Your task to perform on an android device: set the stopwatch Image 0: 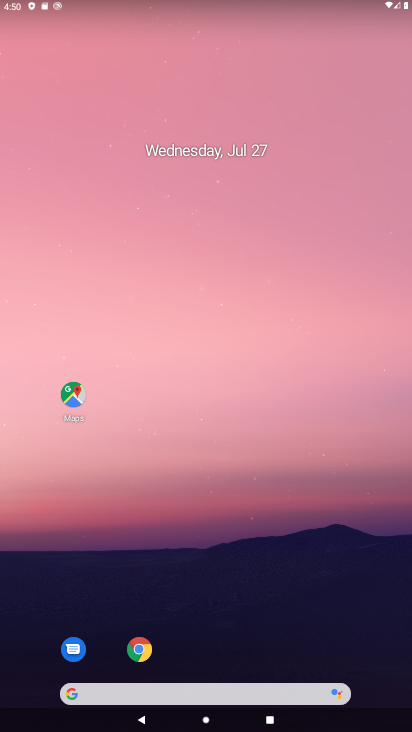
Step 0: drag from (226, 683) to (187, 45)
Your task to perform on an android device: set the stopwatch Image 1: 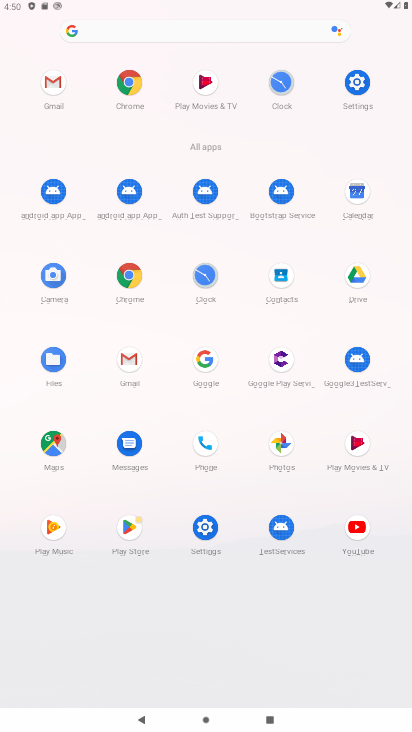
Step 1: click (206, 277)
Your task to perform on an android device: set the stopwatch Image 2: 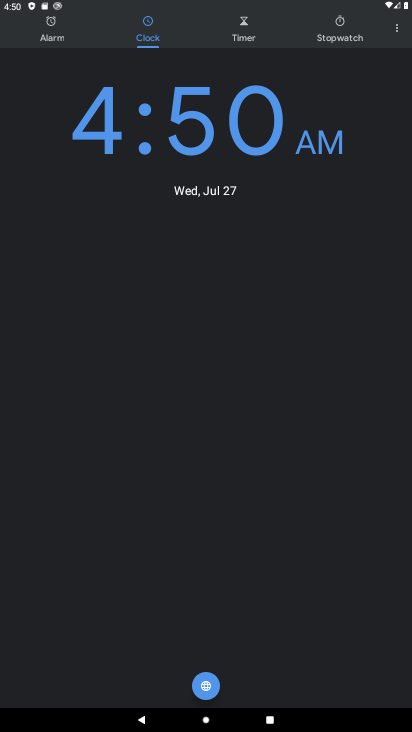
Step 2: click (341, 25)
Your task to perform on an android device: set the stopwatch Image 3: 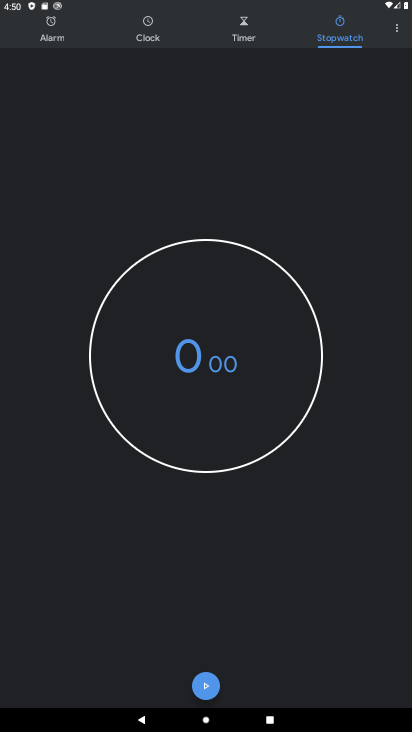
Step 3: click (210, 355)
Your task to perform on an android device: set the stopwatch Image 4: 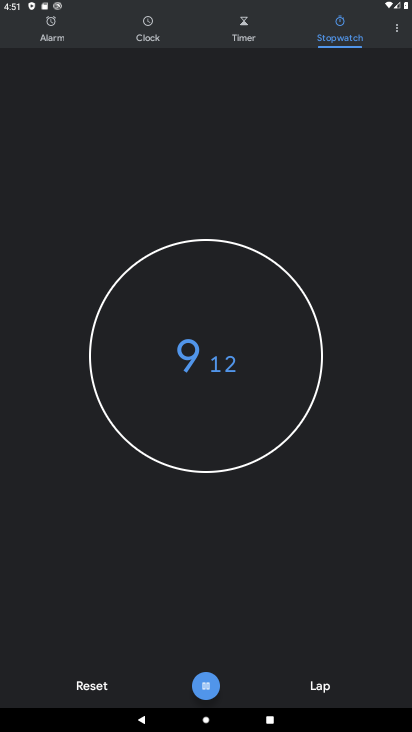
Step 4: click (204, 687)
Your task to perform on an android device: set the stopwatch Image 5: 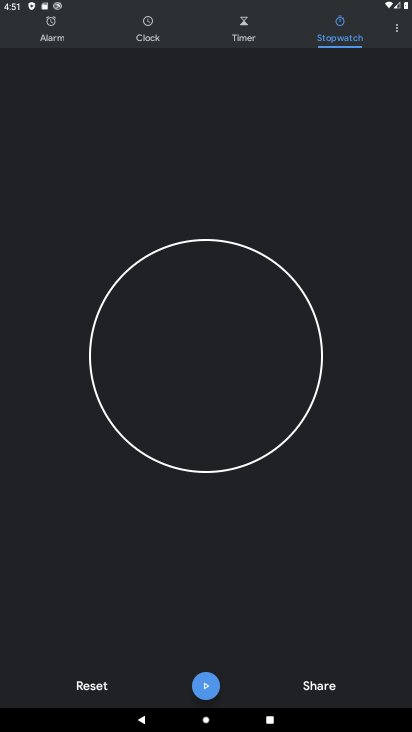
Step 5: task complete